Your task to perform on an android device: set an alarm Image 0: 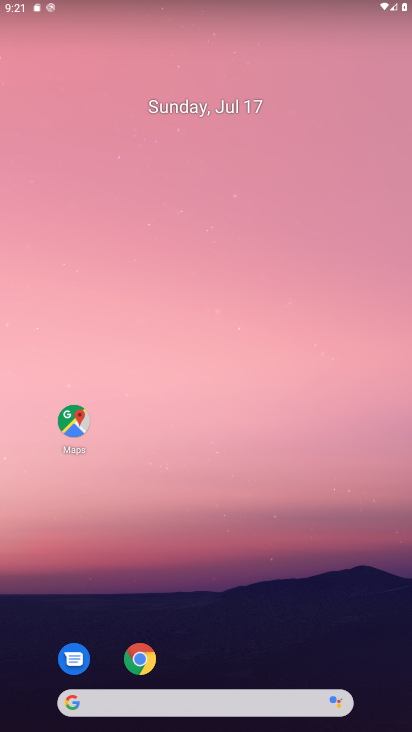
Step 0: drag from (215, 693) to (255, 100)
Your task to perform on an android device: set an alarm Image 1: 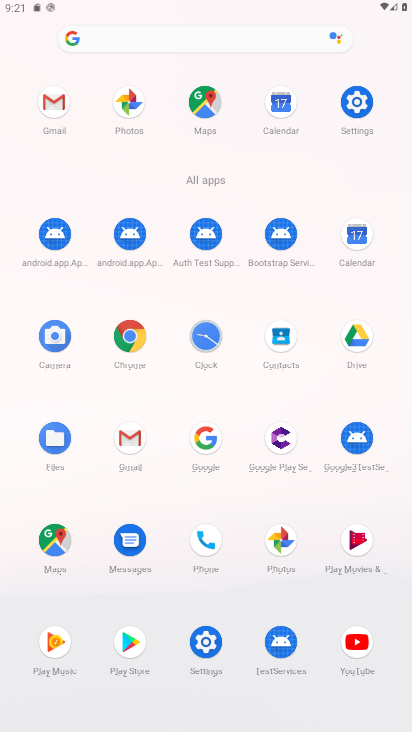
Step 1: click (210, 330)
Your task to perform on an android device: set an alarm Image 2: 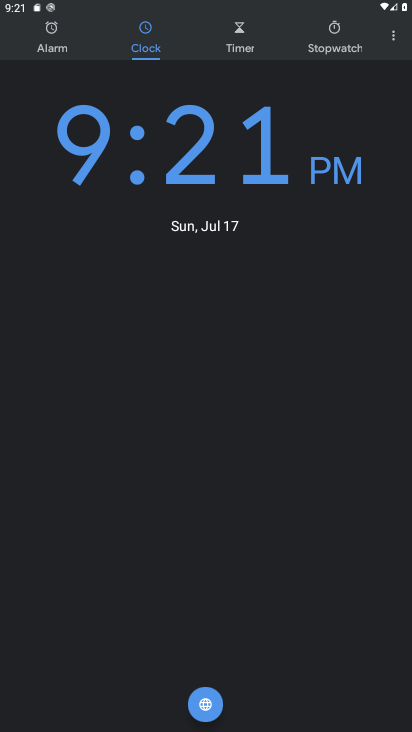
Step 2: click (64, 38)
Your task to perform on an android device: set an alarm Image 3: 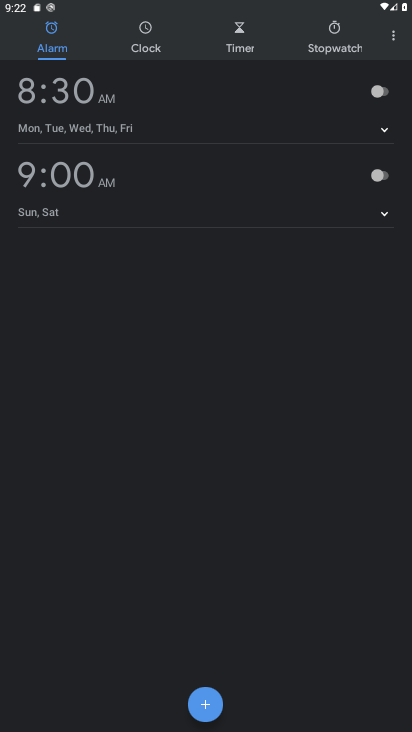
Step 3: click (205, 716)
Your task to perform on an android device: set an alarm Image 4: 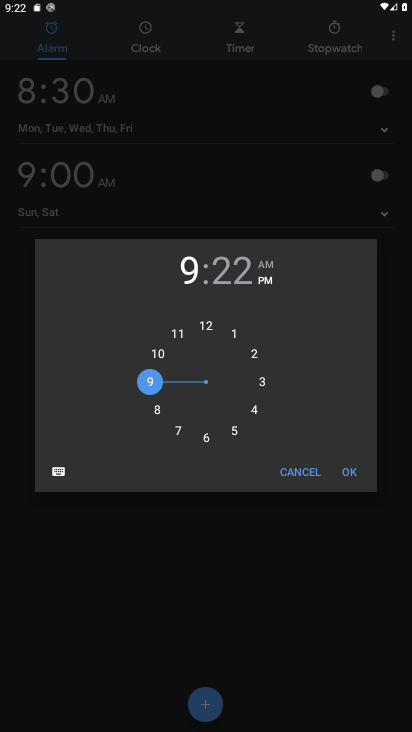
Step 4: click (159, 418)
Your task to perform on an android device: set an alarm Image 5: 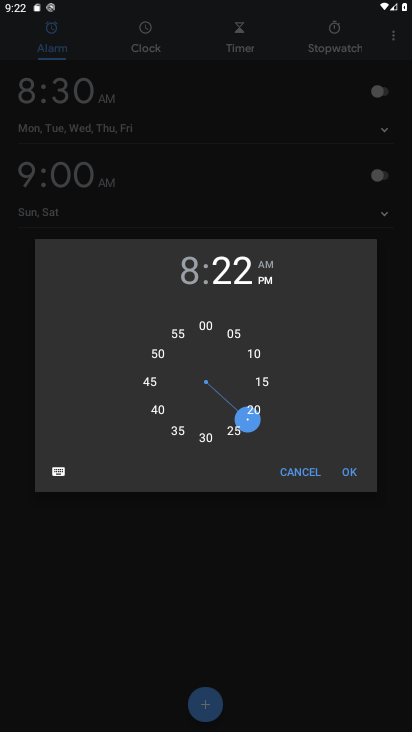
Step 5: click (342, 478)
Your task to perform on an android device: set an alarm Image 6: 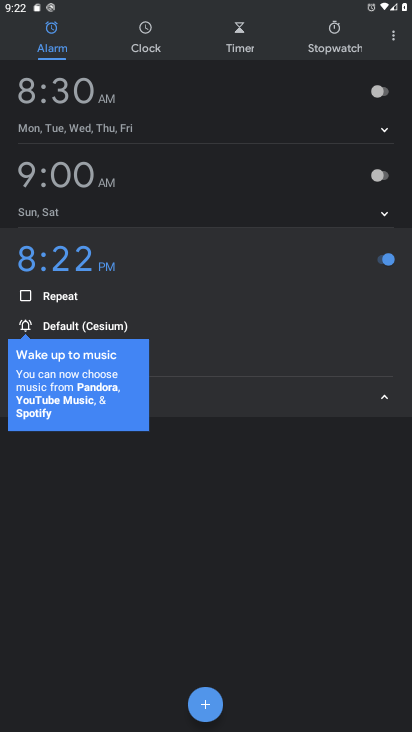
Step 6: task complete